Your task to perform on an android device: Open Google Chrome Image 0: 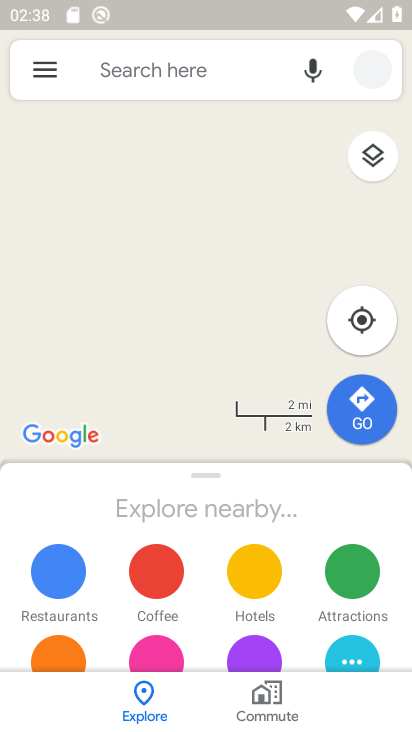
Step 0: press home button
Your task to perform on an android device: Open Google Chrome Image 1: 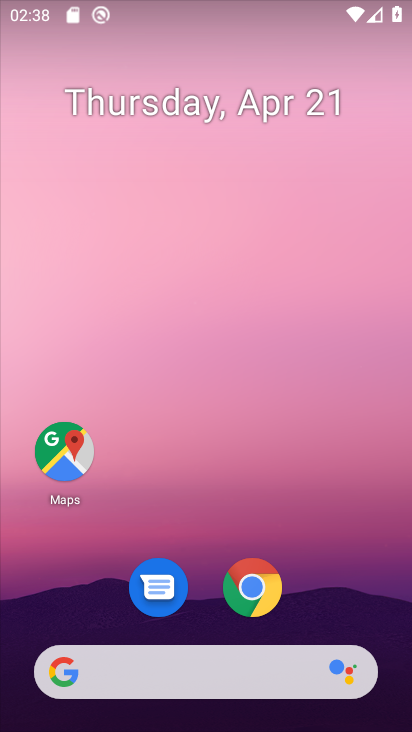
Step 1: drag from (329, 562) to (358, 125)
Your task to perform on an android device: Open Google Chrome Image 2: 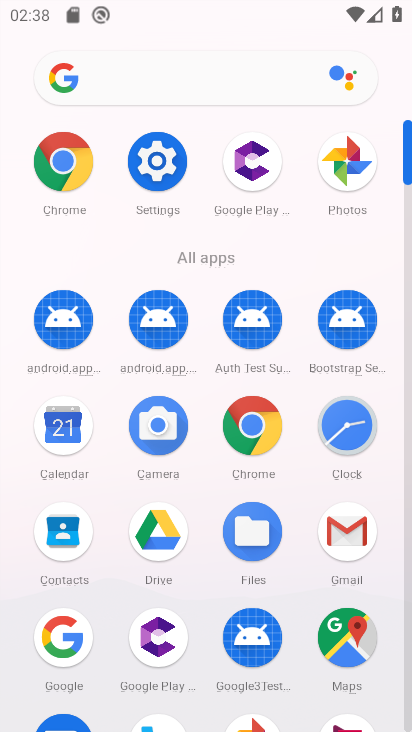
Step 2: drag from (198, 576) to (204, 273)
Your task to perform on an android device: Open Google Chrome Image 3: 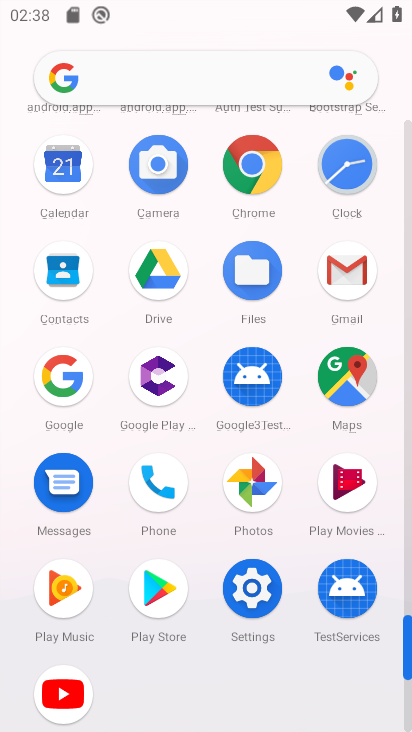
Step 3: click (56, 388)
Your task to perform on an android device: Open Google Chrome Image 4: 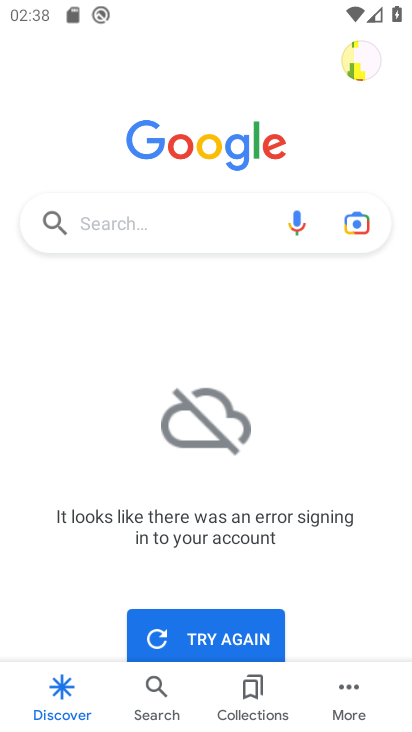
Step 4: task complete